Your task to perform on an android device: turn off airplane mode Image 0: 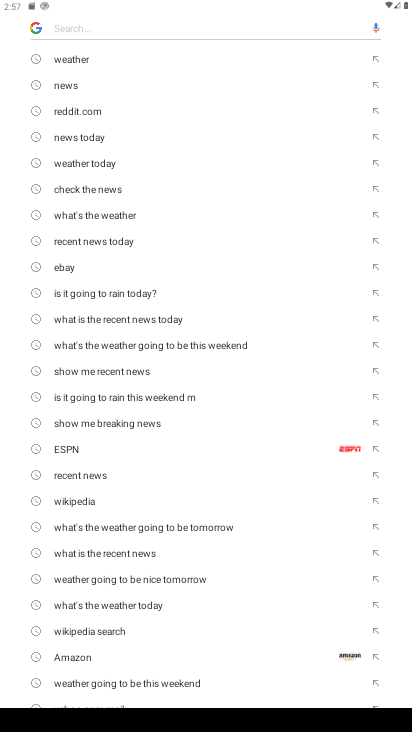
Step 0: press home button
Your task to perform on an android device: turn off airplane mode Image 1: 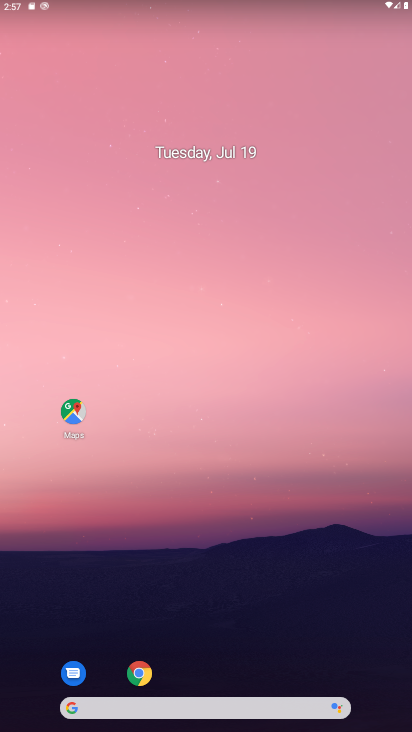
Step 1: drag from (238, 669) to (186, 107)
Your task to perform on an android device: turn off airplane mode Image 2: 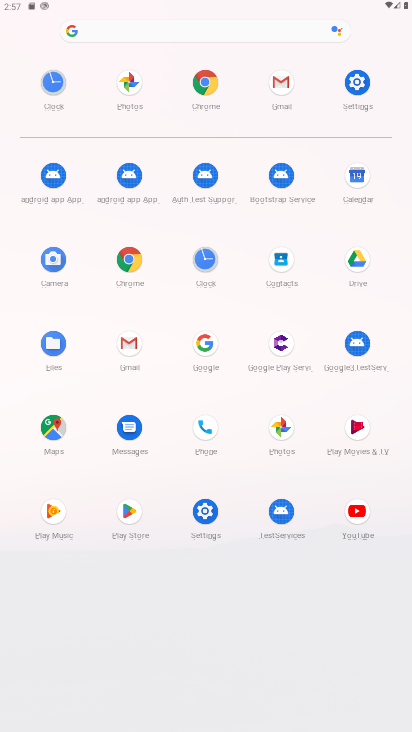
Step 2: click (207, 531)
Your task to perform on an android device: turn off airplane mode Image 3: 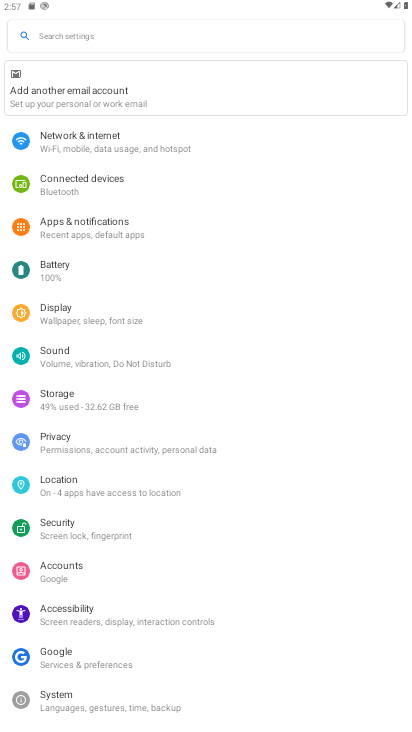
Step 3: click (114, 147)
Your task to perform on an android device: turn off airplane mode Image 4: 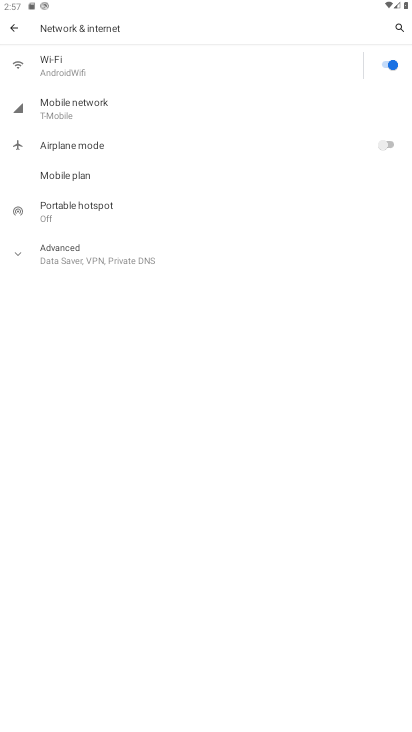
Step 4: click (387, 146)
Your task to perform on an android device: turn off airplane mode Image 5: 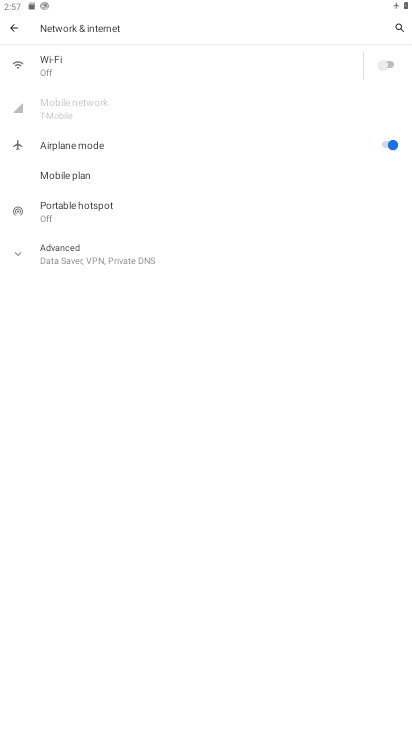
Step 5: task complete